Your task to perform on an android device: Open Google Chrome and click the shortcut for Amazon.com Image 0: 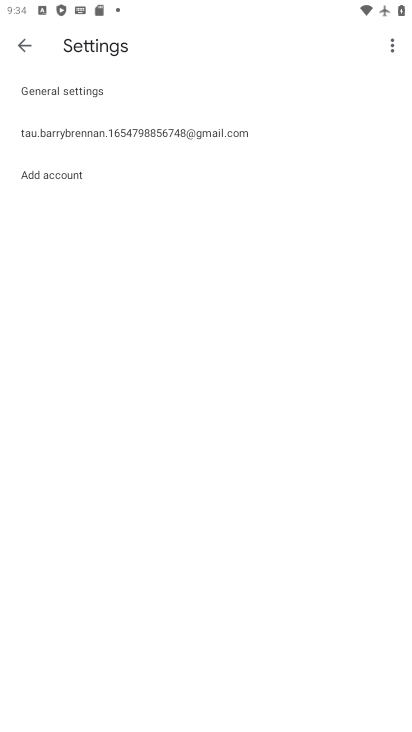
Step 0: press home button
Your task to perform on an android device: Open Google Chrome and click the shortcut for Amazon.com Image 1: 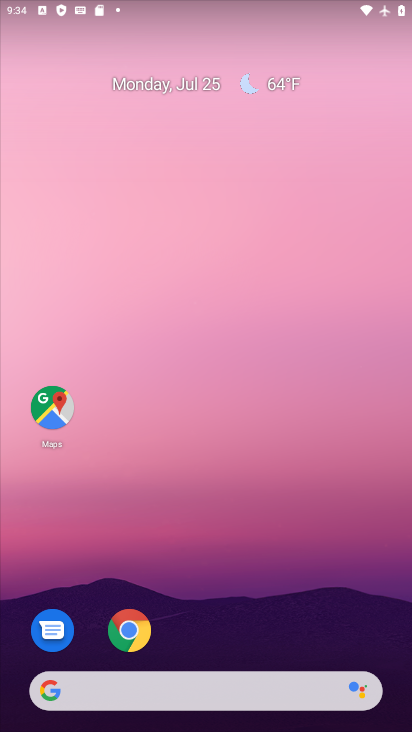
Step 1: click (131, 631)
Your task to perform on an android device: Open Google Chrome and click the shortcut for Amazon.com Image 2: 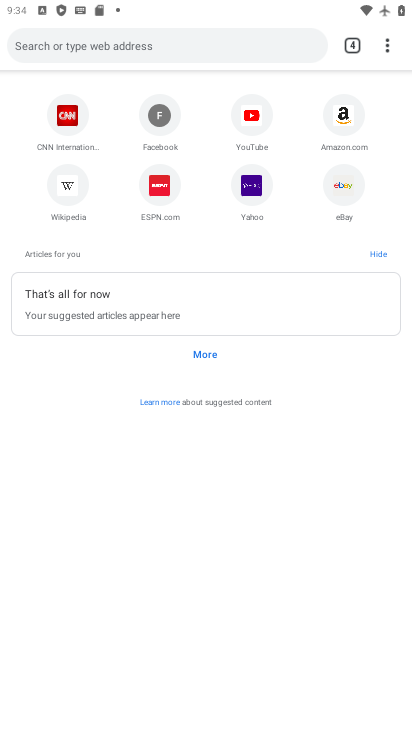
Step 2: click (386, 51)
Your task to perform on an android device: Open Google Chrome and click the shortcut for Amazon.com Image 3: 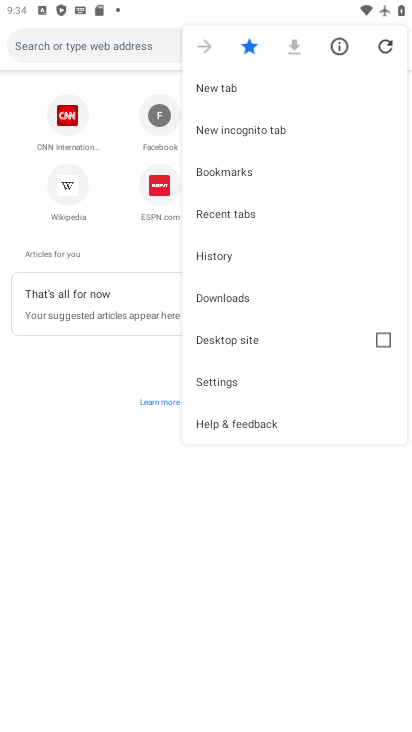
Step 3: click (96, 368)
Your task to perform on an android device: Open Google Chrome and click the shortcut for Amazon.com Image 4: 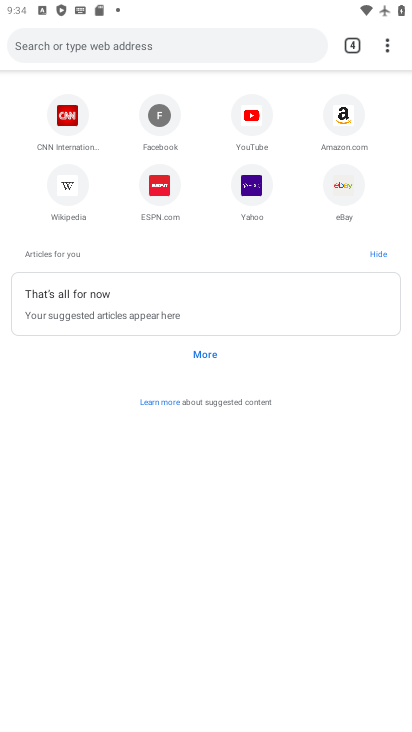
Step 4: click (342, 109)
Your task to perform on an android device: Open Google Chrome and click the shortcut for Amazon.com Image 5: 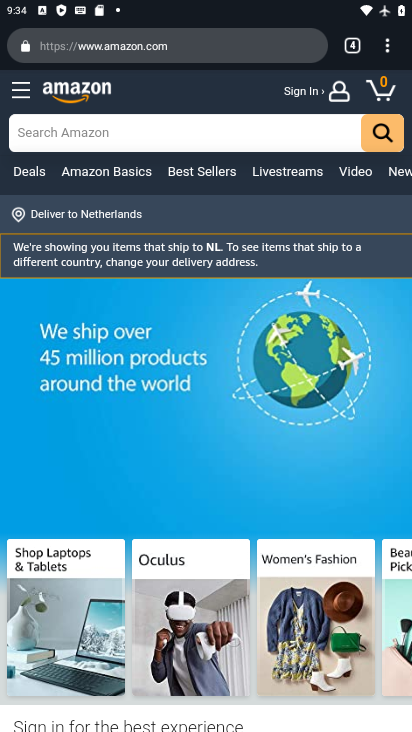
Step 5: task complete